Your task to perform on an android device: set default search engine in the chrome app Image 0: 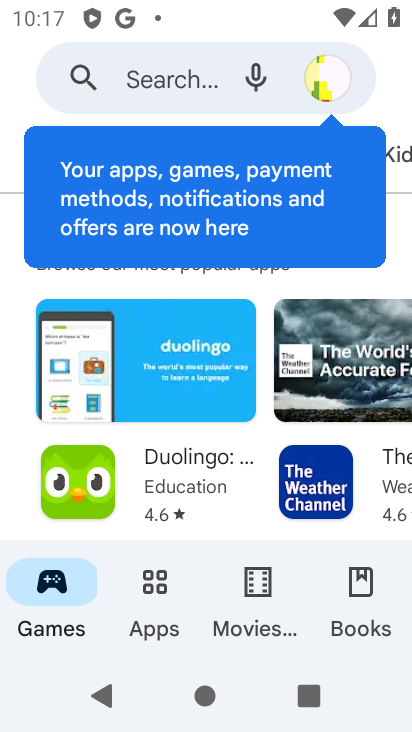
Step 0: press home button
Your task to perform on an android device: set default search engine in the chrome app Image 1: 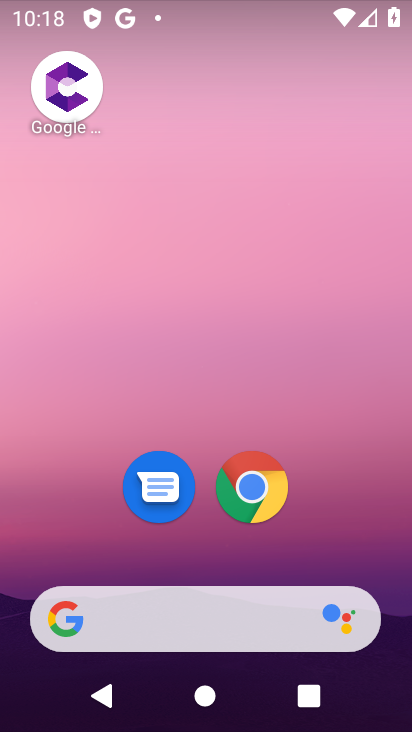
Step 1: click (250, 490)
Your task to perform on an android device: set default search engine in the chrome app Image 2: 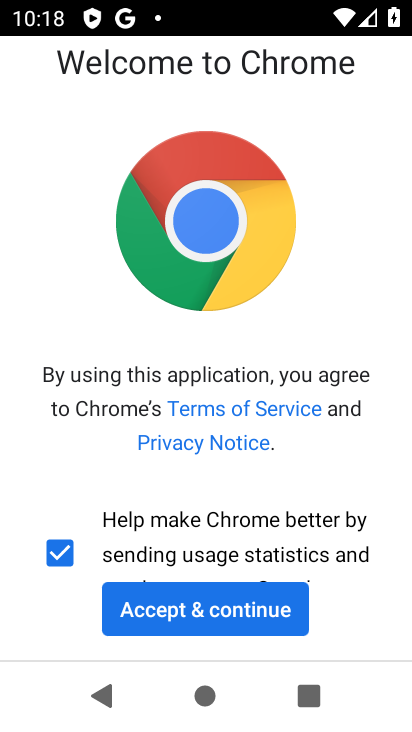
Step 2: click (200, 612)
Your task to perform on an android device: set default search engine in the chrome app Image 3: 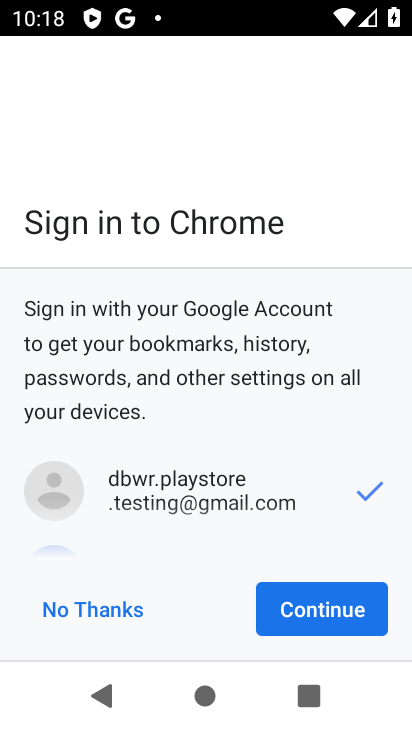
Step 3: click (98, 613)
Your task to perform on an android device: set default search engine in the chrome app Image 4: 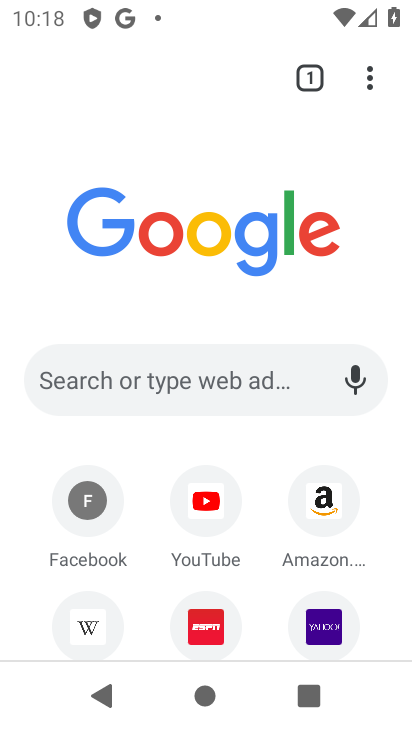
Step 4: click (365, 83)
Your task to perform on an android device: set default search engine in the chrome app Image 5: 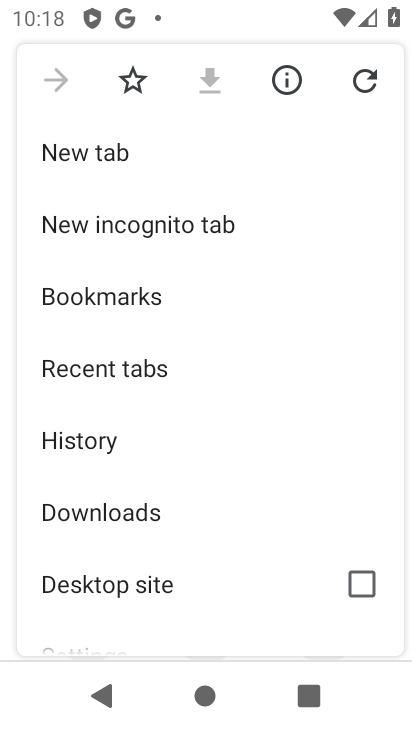
Step 5: drag from (145, 534) to (140, 166)
Your task to perform on an android device: set default search engine in the chrome app Image 6: 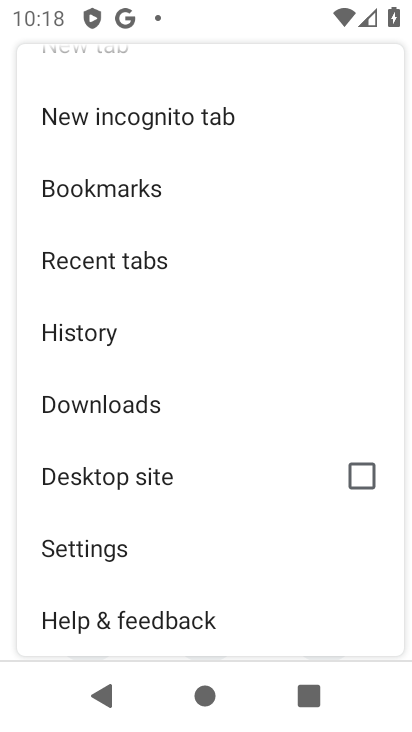
Step 6: click (88, 545)
Your task to perform on an android device: set default search engine in the chrome app Image 7: 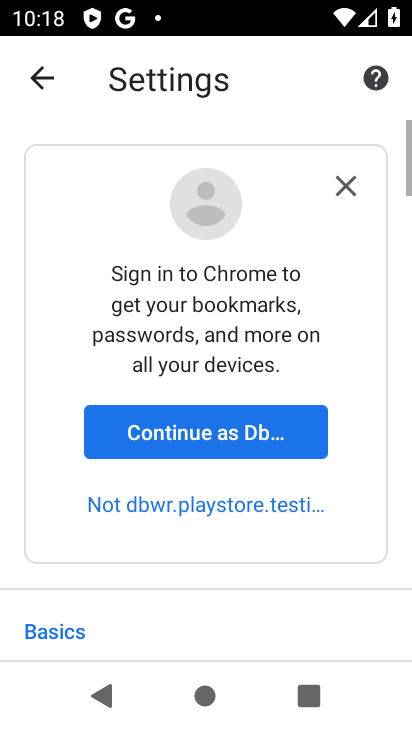
Step 7: drag from (179, 566) to (196, 141)
Your task to perform on an android device: set default search engine in the chrome app Image 8: 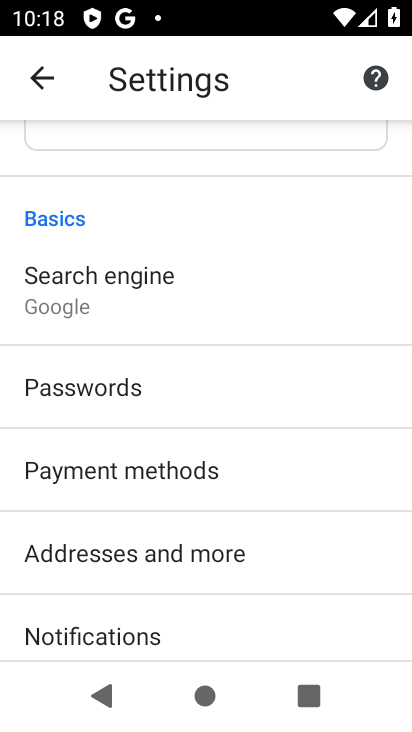
Step 8: click (98, 284)
Your task to perform on an android device: set default search engine in the chrome app Image 9: 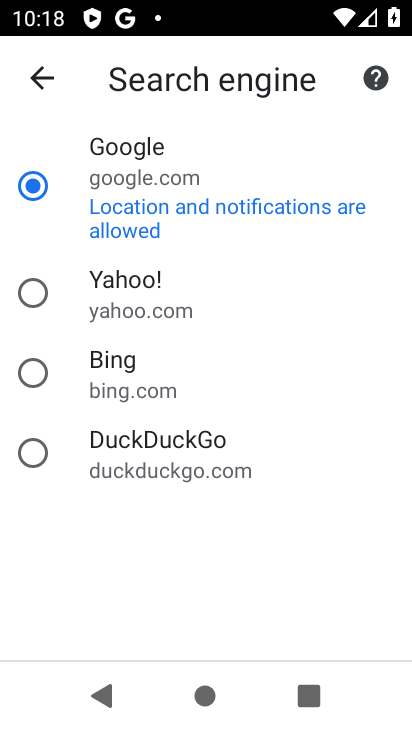
Step 9: click (37, 301)
Your task to perform on an android device: set default search engine in the chrome app Image 10: 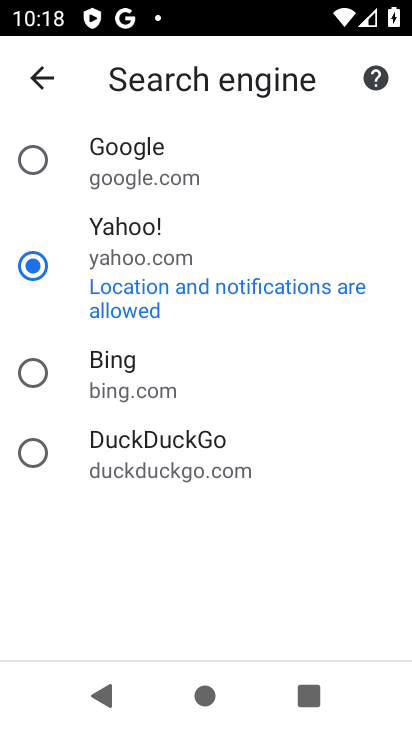
Step 10: task complete